Your task to perform on an android device: Go to internet settings Image 0: 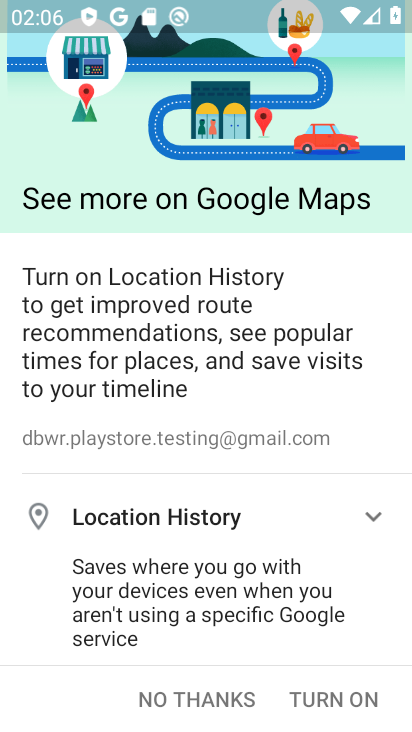
Step 0: press home button
Your task to perform on an android device: Go to internet settings Image 1: 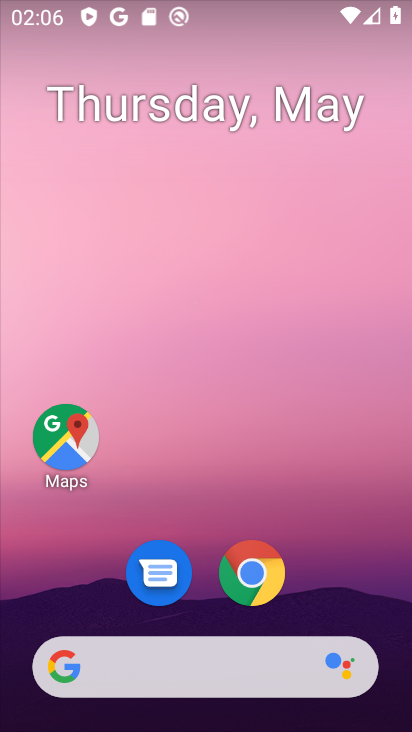
Step 1: drag from (305, 566) to (279, 260)
Your task to perform on an android device: Go to internet settings Image 2: 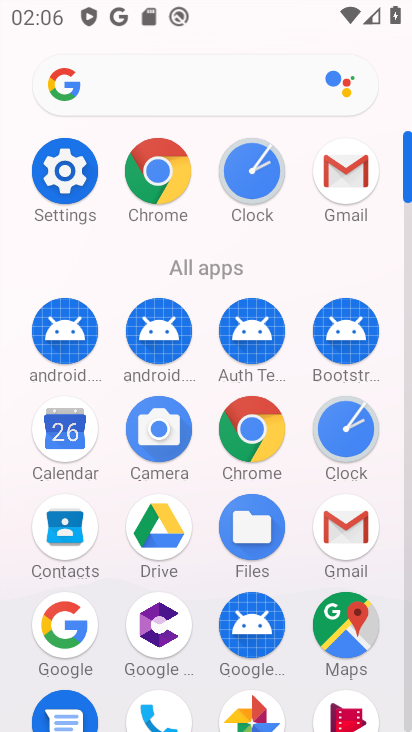
Step 2: click (46, 164)
Your task to perform on an android device: Go to internet settings Image 3: 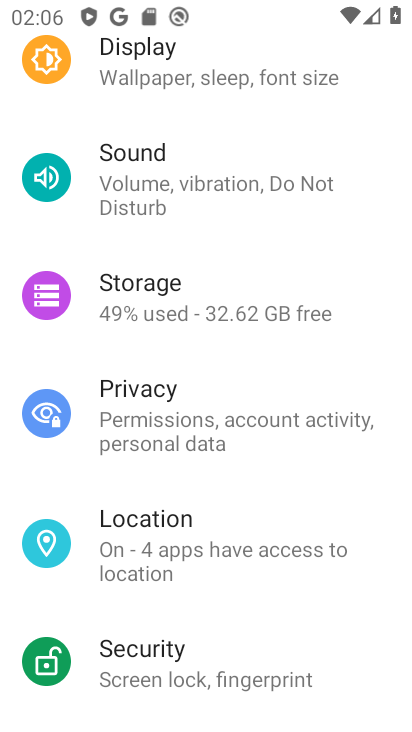
Step 3: drag from (183, 126) to (211, 689)
Your task to perform on an android device: Go to internet settings Image 4: 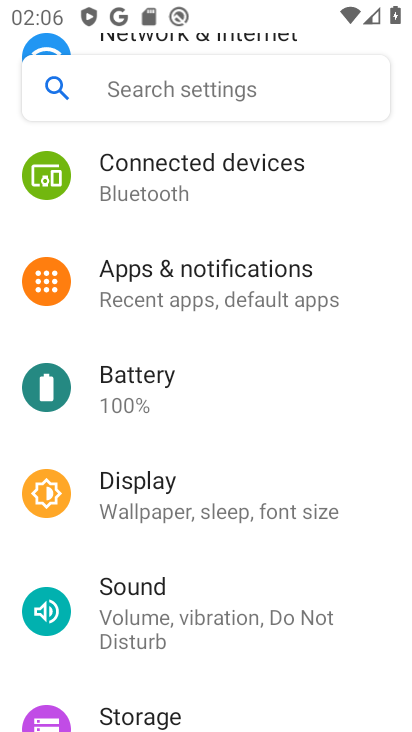
Step 4: drag from (232, 176) to (226, 535)
Your task to perform on an android device: Go to internet settings Image 5: 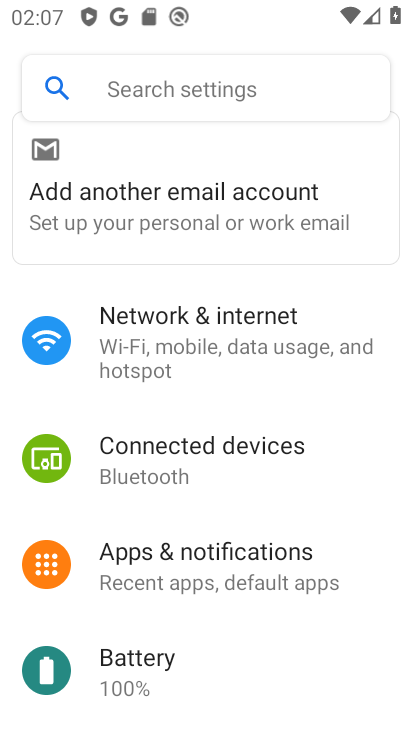
Step 5: click (191, 338)
Your task to perform on an android device: Go to internet settings Image 6: 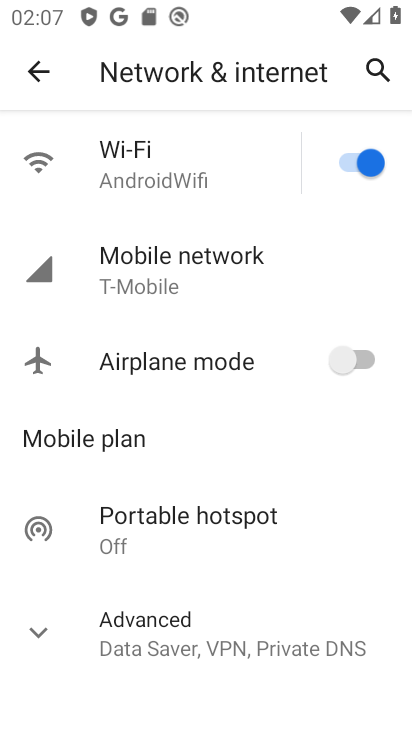
Step 6: task complete